Your task to perform on an android device: Open maps Image 0: 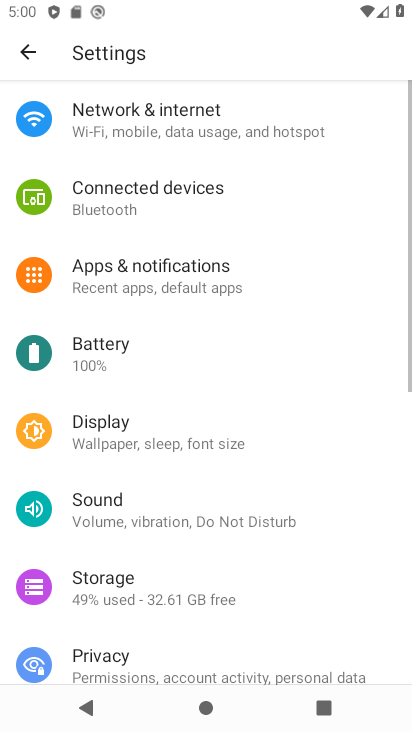
Step 0: press back button
Your task to perform on an android device: Open maps Image 1: 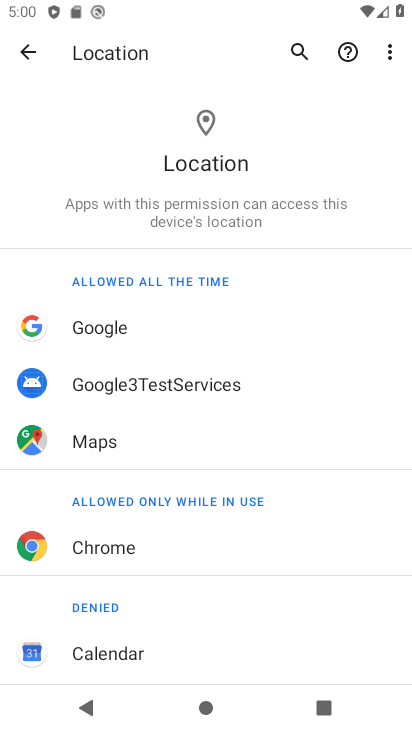
Step 1: press back button
Your task to perform on an android device: Open maps Image 2: 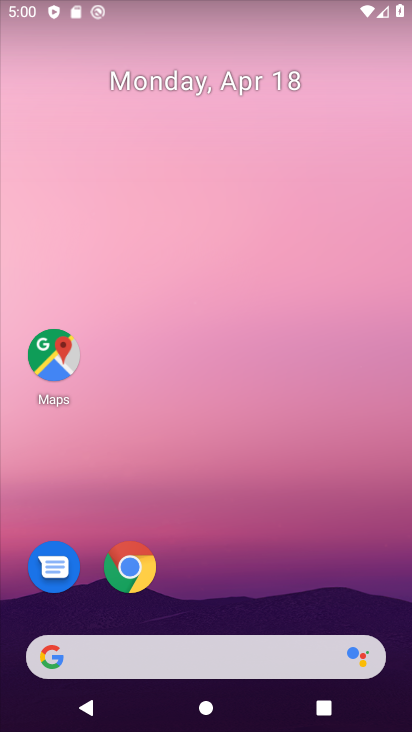
Step 2: drag from (333, 595) to (214, 9)
Your task to perform on an android device: Open maps Image 3: 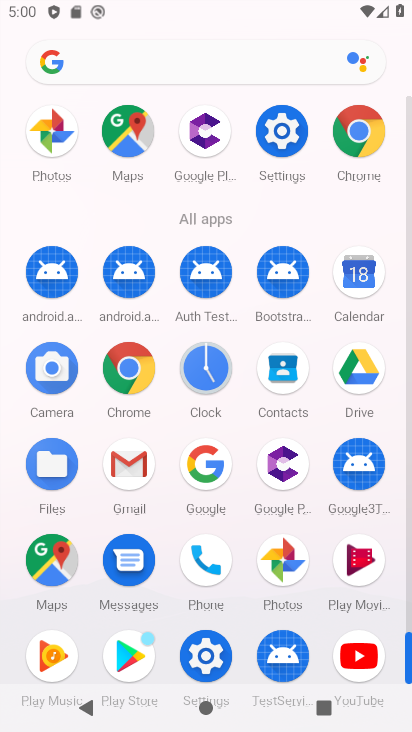
Step 3: click (132, 129)
Your task to perform on an android device: Open maps Image 4: 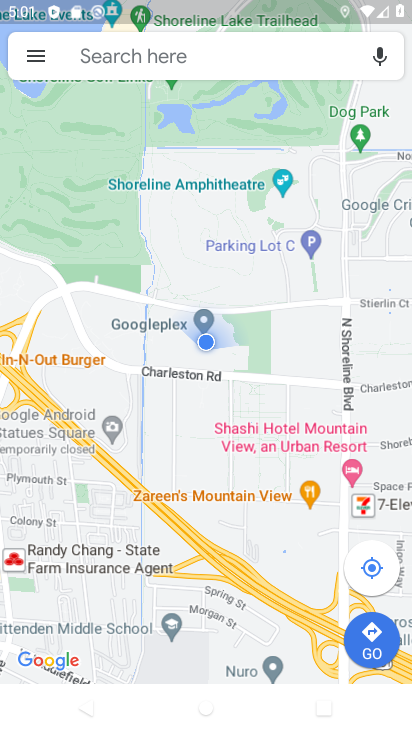
Step 4: click (31, 58)
Your task to perform on an android device: Open maps Image 5: 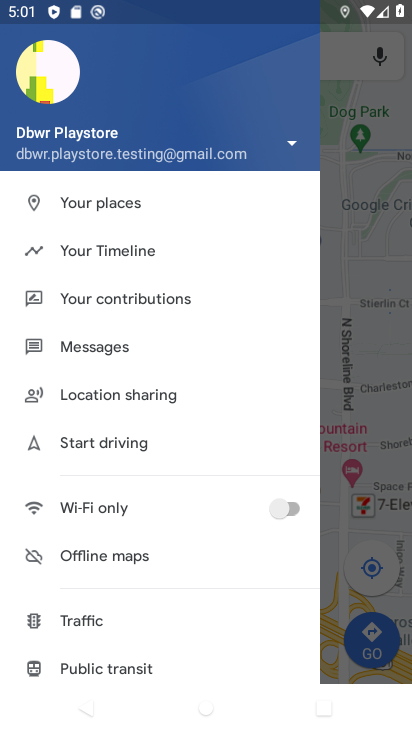
Step 5: drag from (199, 434) to (188, 181)
Your task to perform on an android device: Open maps Image 6: 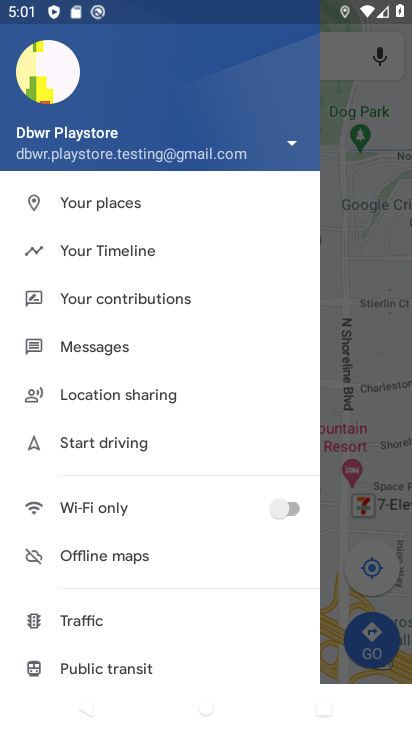
Step 6: click (367, 345)
Your task to perform on an android device: Open maps Image 7: 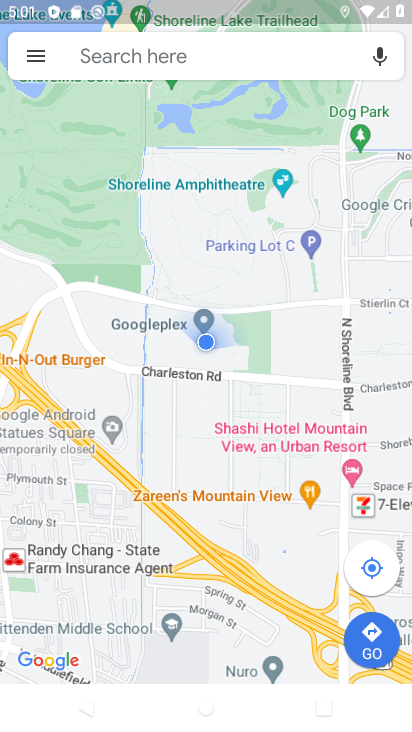
Step 7: task complete